Your task to perform on an android device: Open the map Image 0: 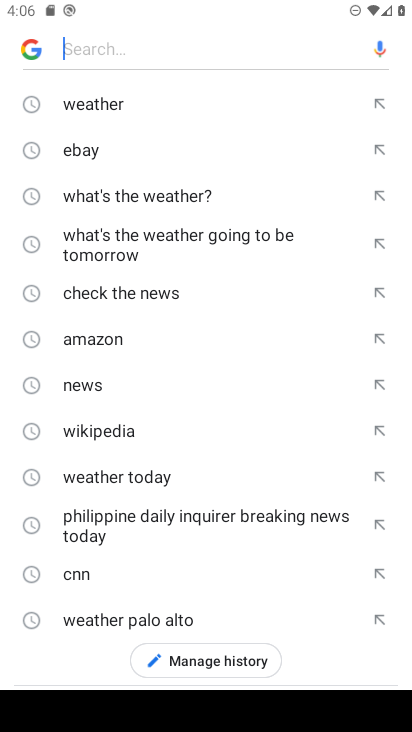
Step 0: press home button
Your task to perform on an android device: Open the map Image 1: 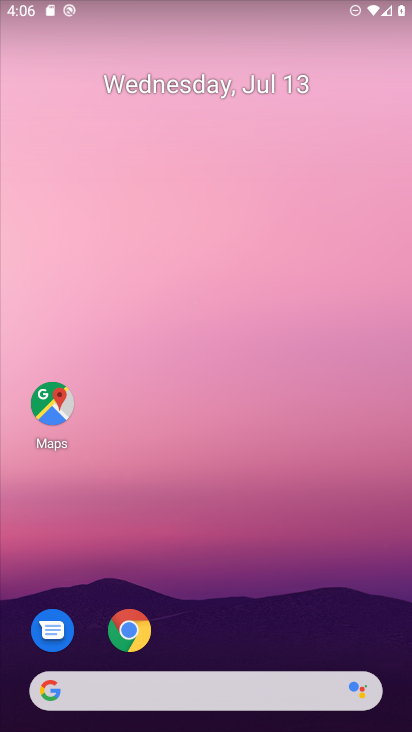
Step 1: click (49, 395)
Your task to perform on an android device: Open the map Image 2: 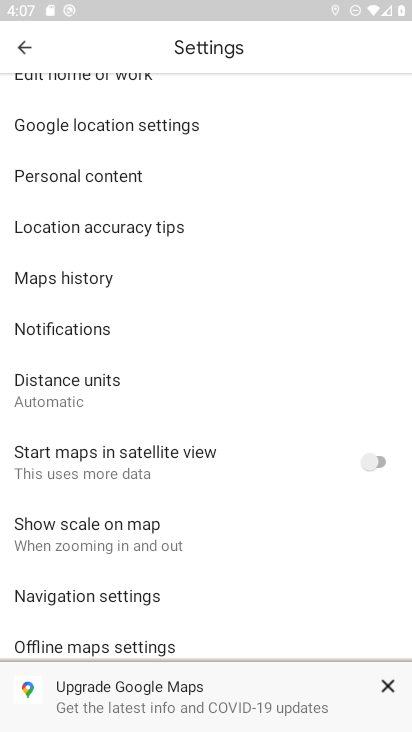
Step 2: task complete